Your task to perform on an android device: turn on translation in the chrome app Image 0: 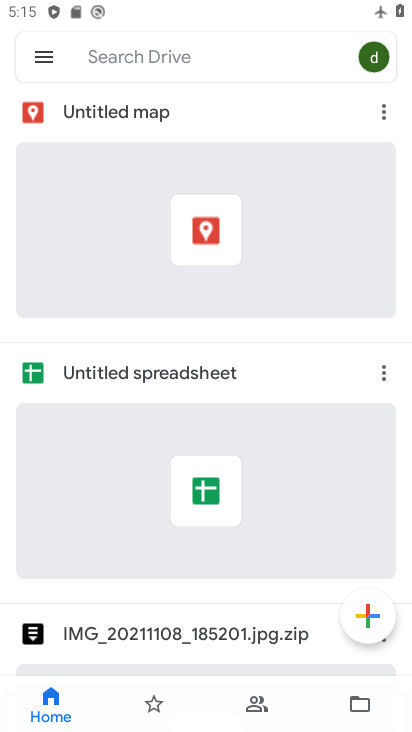
Step 0: press back button
Your task to perform on an android device: turn on translation in the chrome app Image 1: 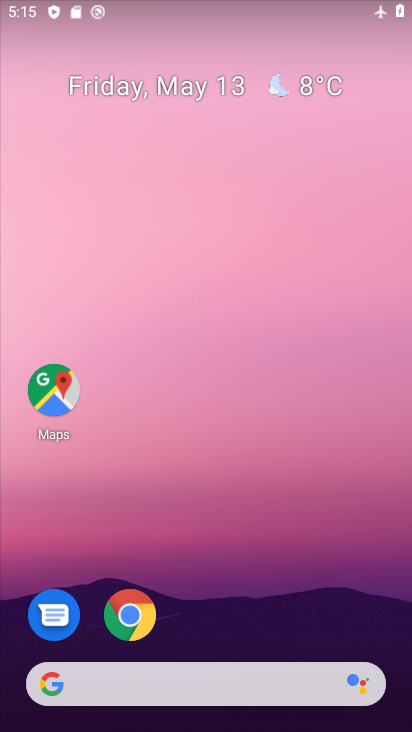
Step 1: drag from (231, 307) to (189, 0)
Your task to perform on an android device: turn on translation in the chrome app Image 2: 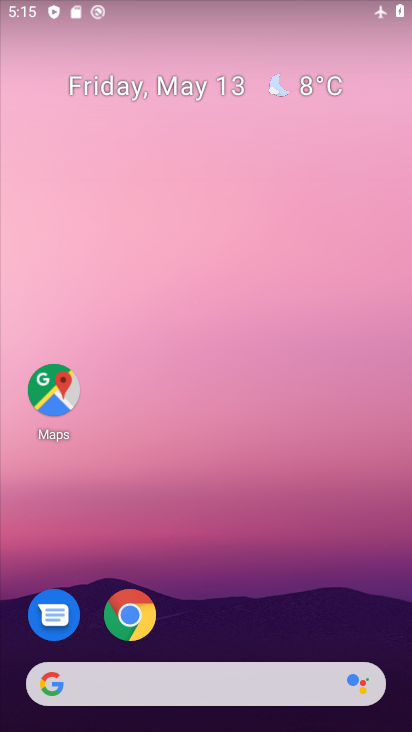
Step 2: drag from (265, 619) to (204, 0)
Your task to perform on an android device: turn on translation in the chrome app Image 3: 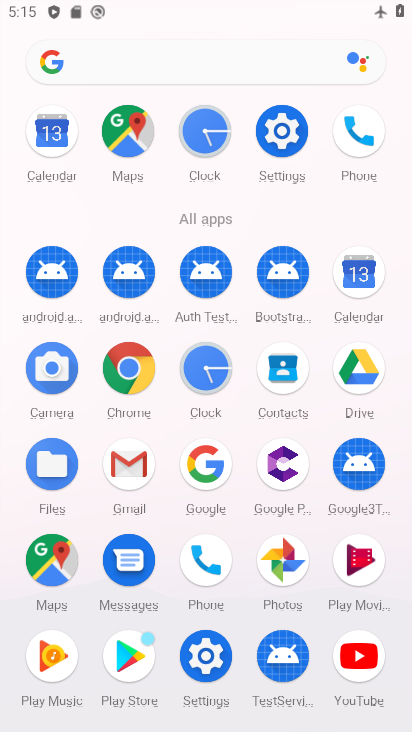
Step 3: drag from (10, 522) to (10, 223)
Your task to perform on an android device: turn on translation in the chrome app Image 4: 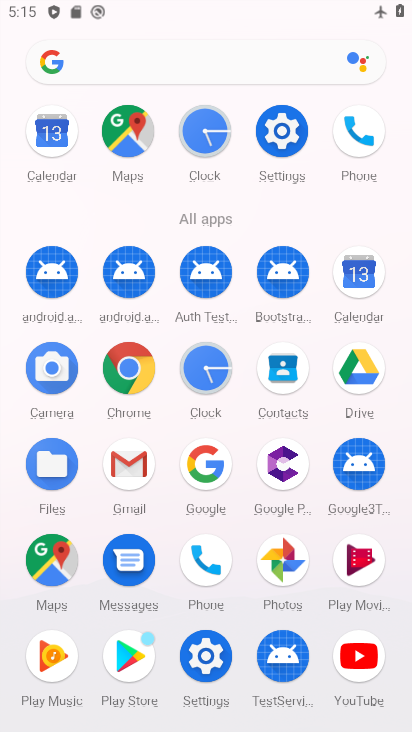
Step 4: click (122, 373)
Your task to perform on an android device: turn on translation in the chrome app Image 5: 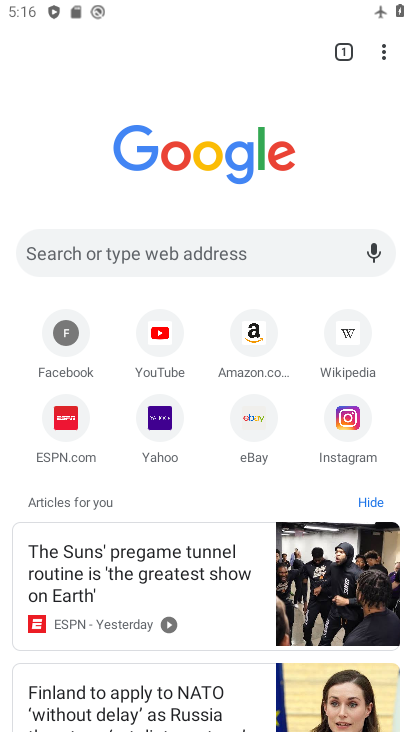
Step 5: drag from (375, 45) to (215, 433)
Your task to perform on an android device: turn on translation in the chrome app Image 6: 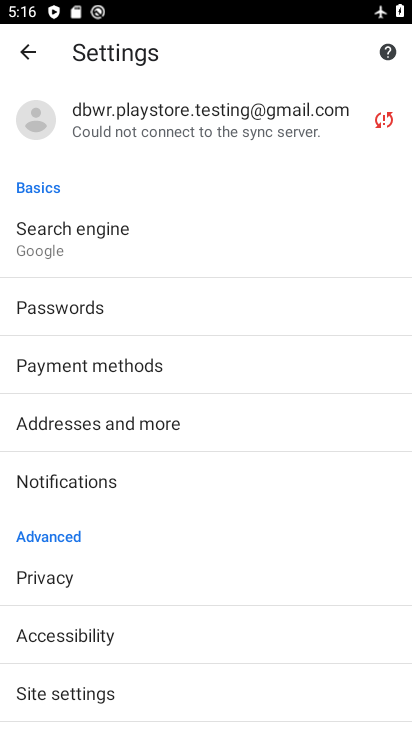
Step 6: drag from (266, 551) to (257, 232)
Your task to perform on an android device: turn on translation in the chrome app Image 7: 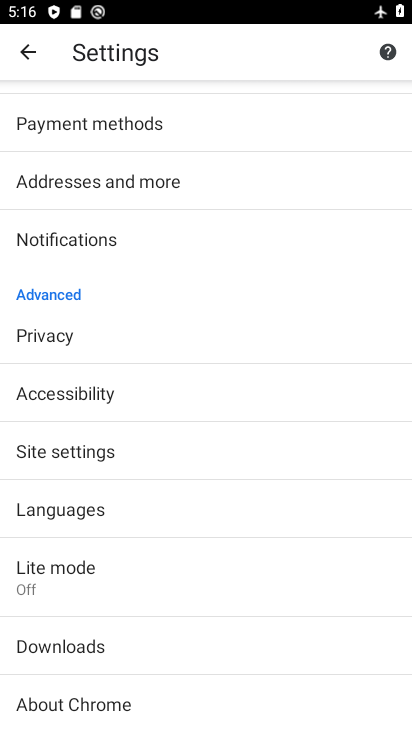
Step 7: click (95, 499)
Your task to perform on an android device: turn on translation in the chrome app Image 8: 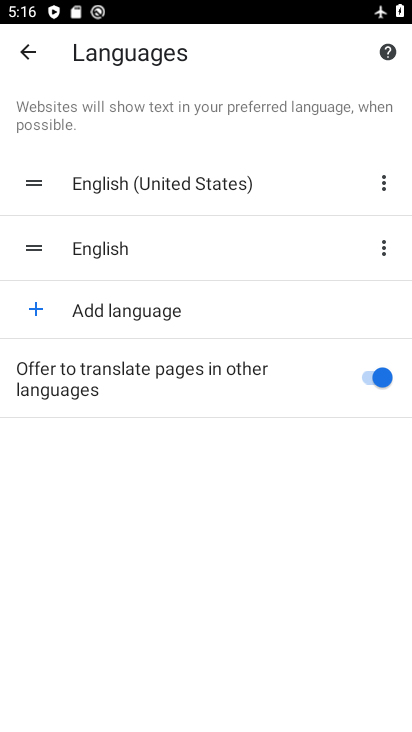
Step 8: task complete